Your task to perform on an android device: open chrome privacy settings Image 0: 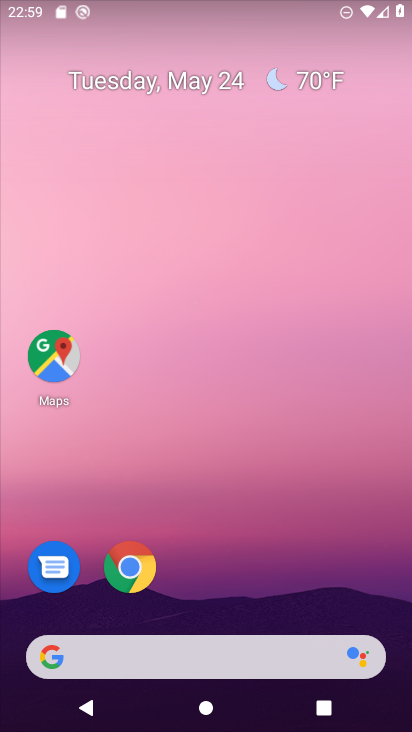
Step 0: click (137, 567)
Your task to perform on an android device: open chrome privacy settings Image 1: 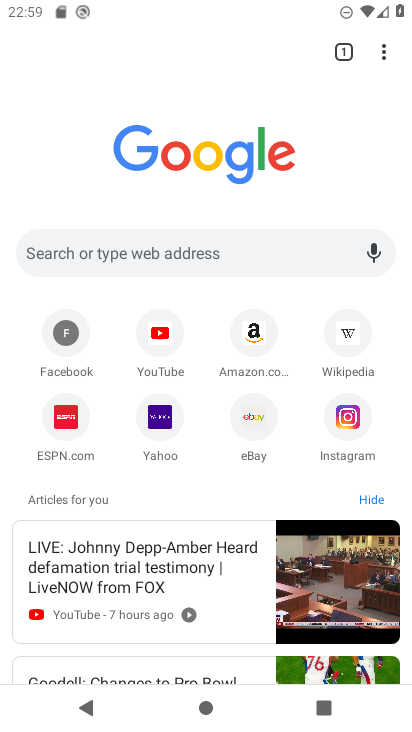
Step 1: click (382, 47)
Your task to perform on an android device: open chrome privacy settings Image 2: 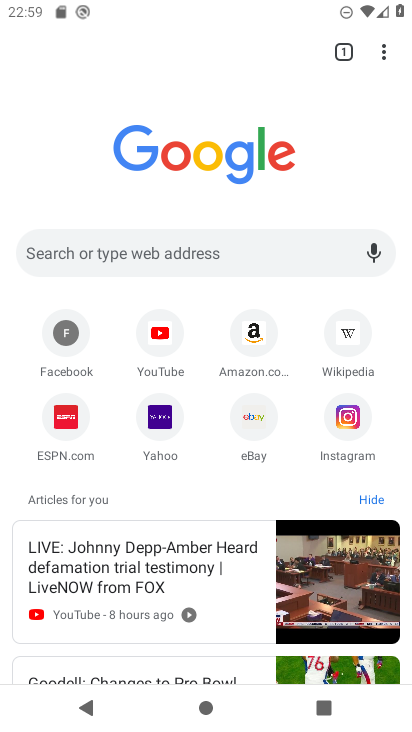
Step 2: click (379, 49)
Your task to perform on an android device: open chrome privacy settings Image 3: 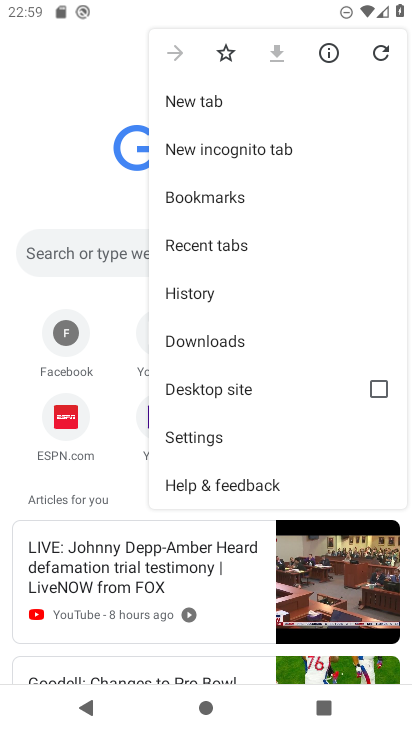
Step 3: click (199, 430)
Your task to perform on an android device: open chrome privacy settings Image 4: 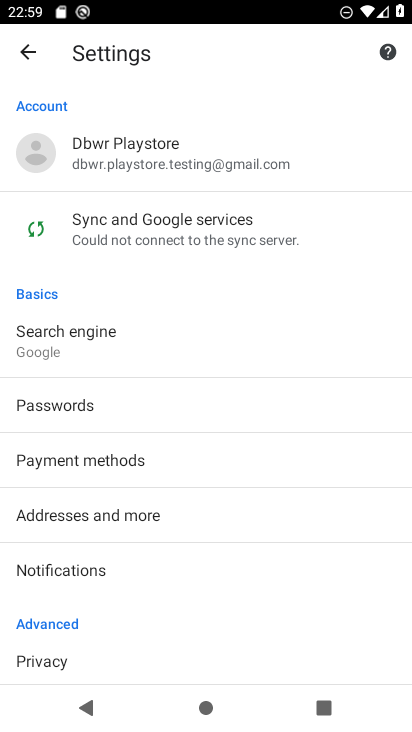
Step 4: drag from (152, 598) to (163, 197)
Your task to perform on an android device: open chrome privacy settings Image 5: 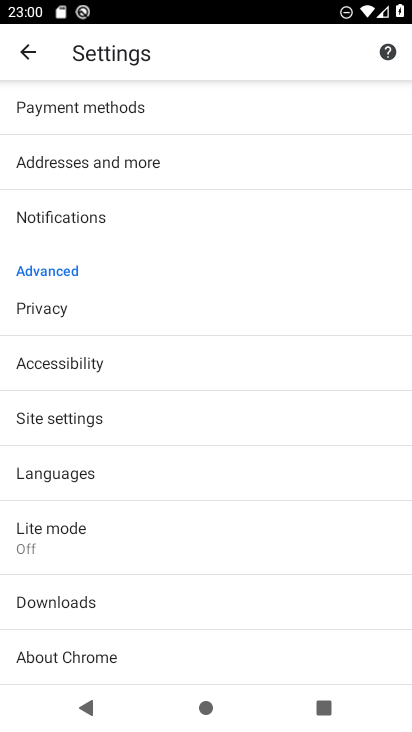
Step 5: click (103, 315)
Your task to perform on an android device: open chrome privacy settings Image 6: 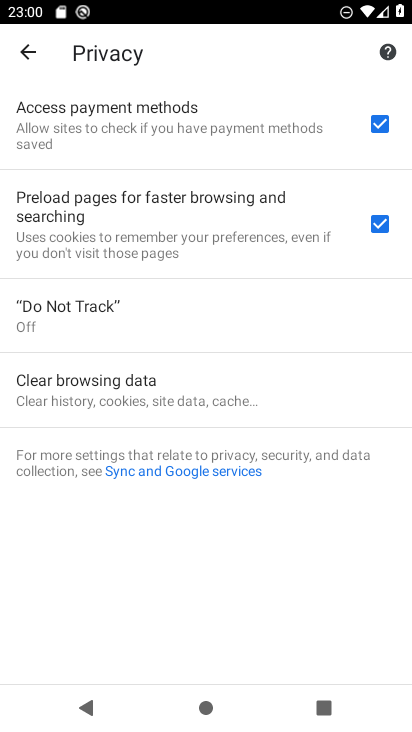
Step 6: task complete